Your task to perform on an android device: manage bookmarks in the chrome app Image 0: 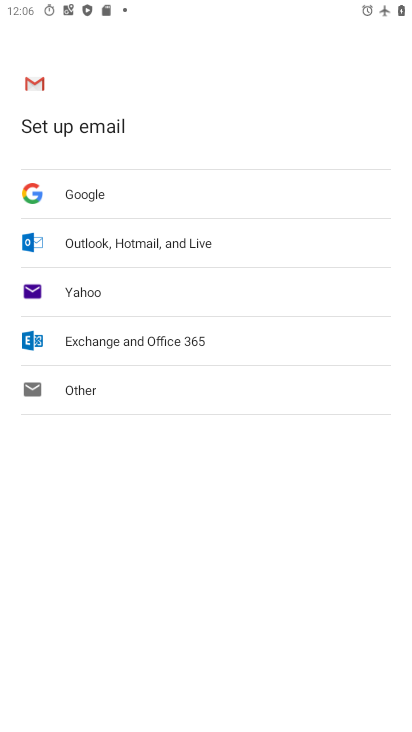
Step 0: press home button
Your task to perform on an android device: manage bookmarks in the chrome app Image 1: 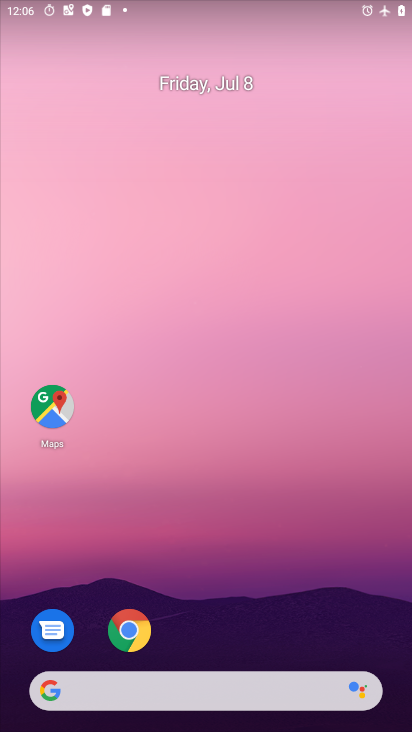
Step 1: click (140, 615)
Your task to perform on an android device: manage bookmarks in the chrome app Image 2: 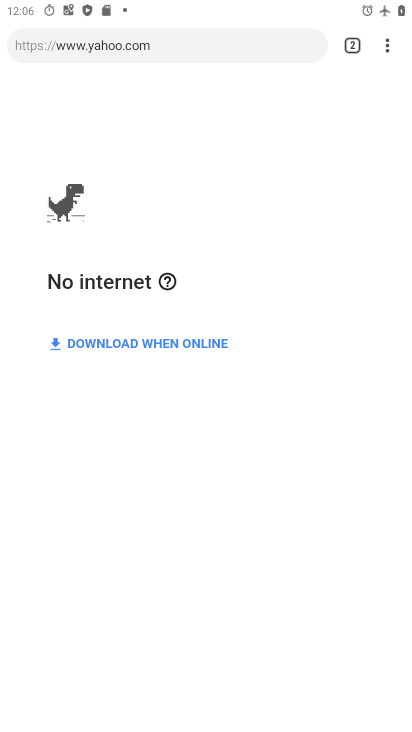
Step 2: click (384, 40)
Your task to perform on an android device: manage bookmarks in the chrome app Image 3: 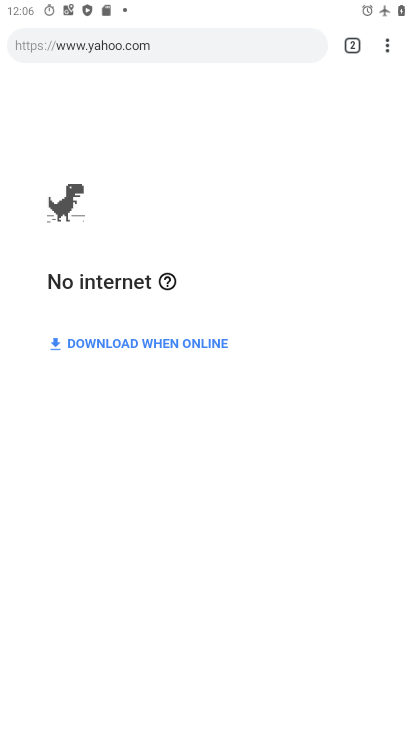
Step 3: click (384, 45)
Your task to perform on an android device: manage bookmarks in the chrome app Image 4: 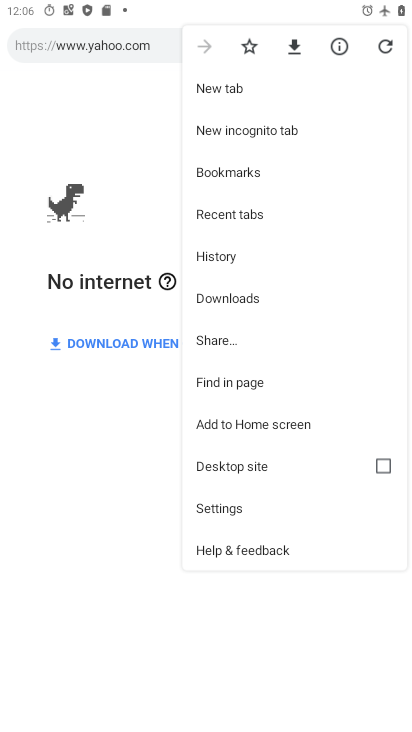
Step 4: click (241, 172)
Your task to perform on an android device: manage bookmarks in the chrome app Image 5: 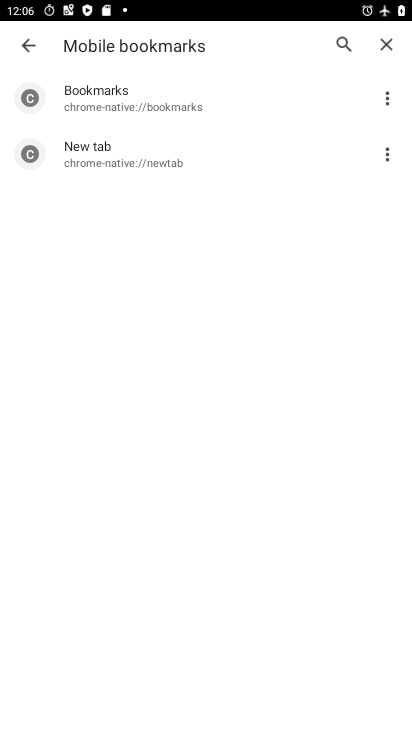
Step 5: click (390, 148)
Your task to perform on an android device: manage bookmarks in the chrome app Image 6: 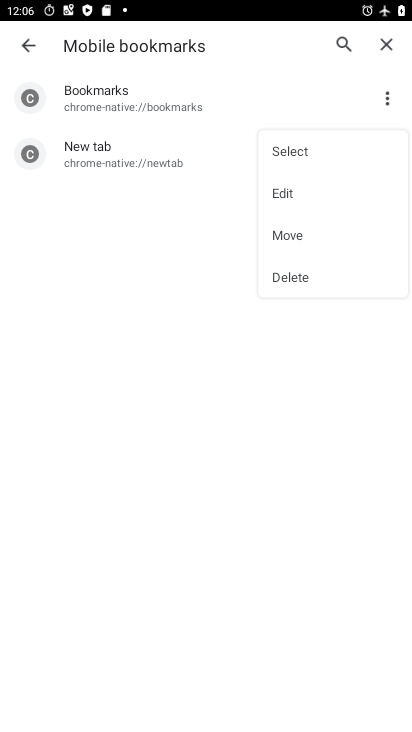
Step 6: click (296, 260)
Your task to perform on an android device: manage bookmarks in the chrome app Image 7: 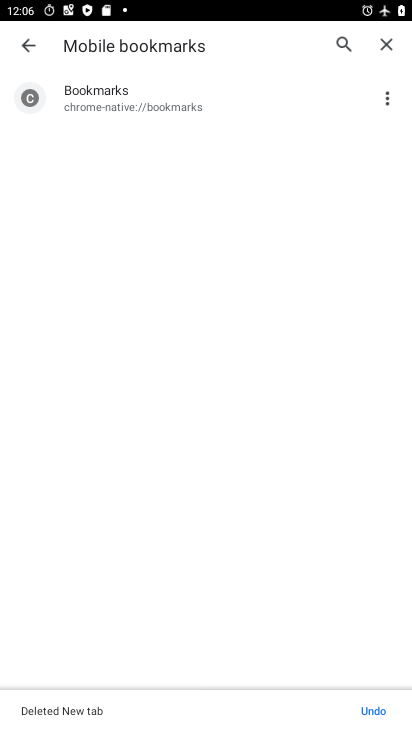
Step 7: task complete